Your task to perform on an android device: Open the calendar app, open the side menu, and click the "Day" option Image 0: 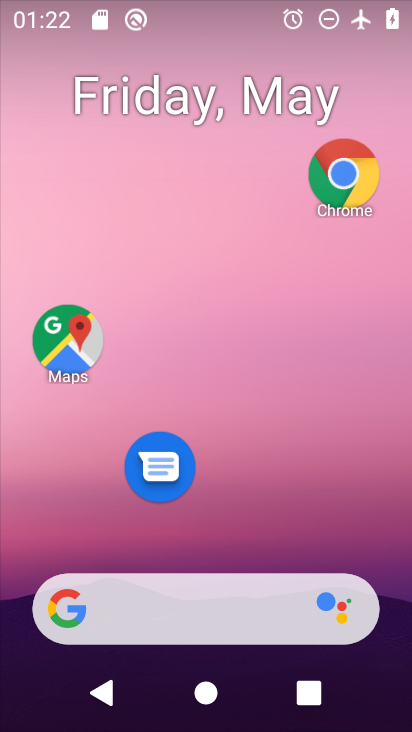
Step 0: click (237, 182)
Your task to perform on an android device: Open the calendar app, open the side menu, and click the "Day" option Image 1: 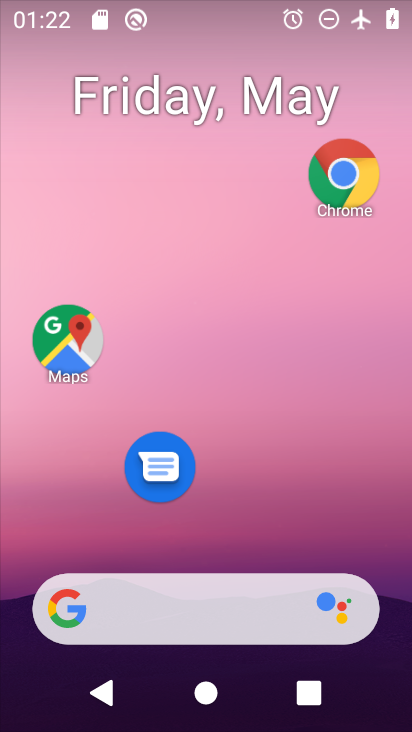
Step 1: drag from (207, 543) to (292, 159)
Your task to perform on an android device: Open the calendar app, open the side menu, and click the "Day" option Image 2: 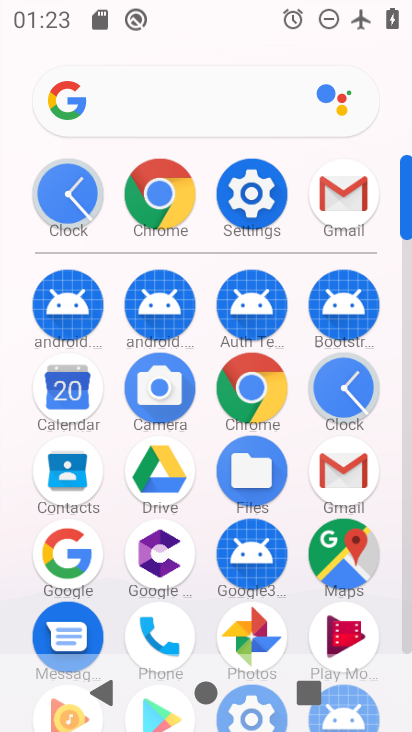
Step 2: click (58, 379)
Your task to perform on an android device: Open the calendar app, open the side menu, and click the "Day" option Image 3: 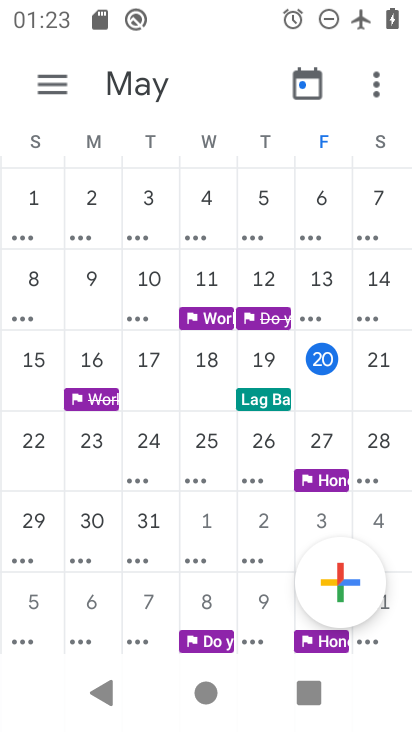
Step 3: click (49, 70)
Your task to perform on an android device: Open the calendar app, open the side menu, and click the "Day" option Image 4: 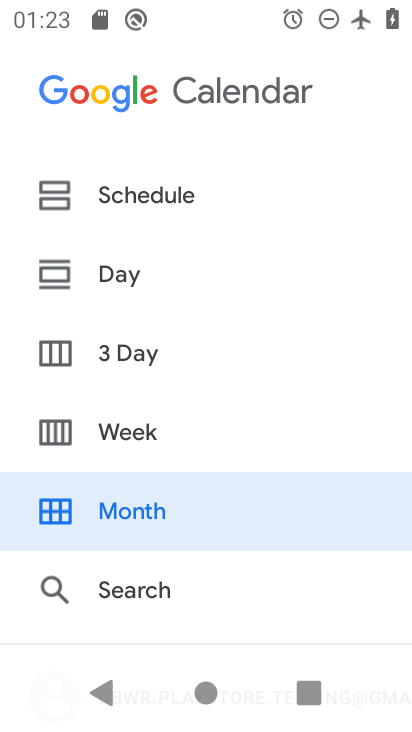
Step 4: click (145, 287)
Your task to perform on an android device: Open the calendar app, open the side menu, and click the "Day" option Image 5: 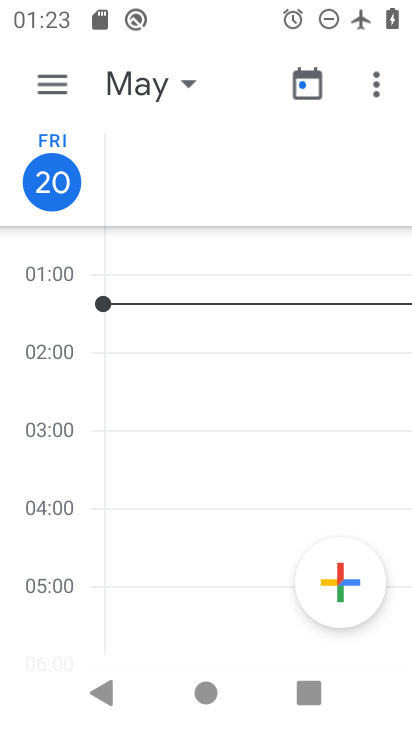
Step 5: task complete